Your task to perform on an android device: When is my next appointment? Image 0: 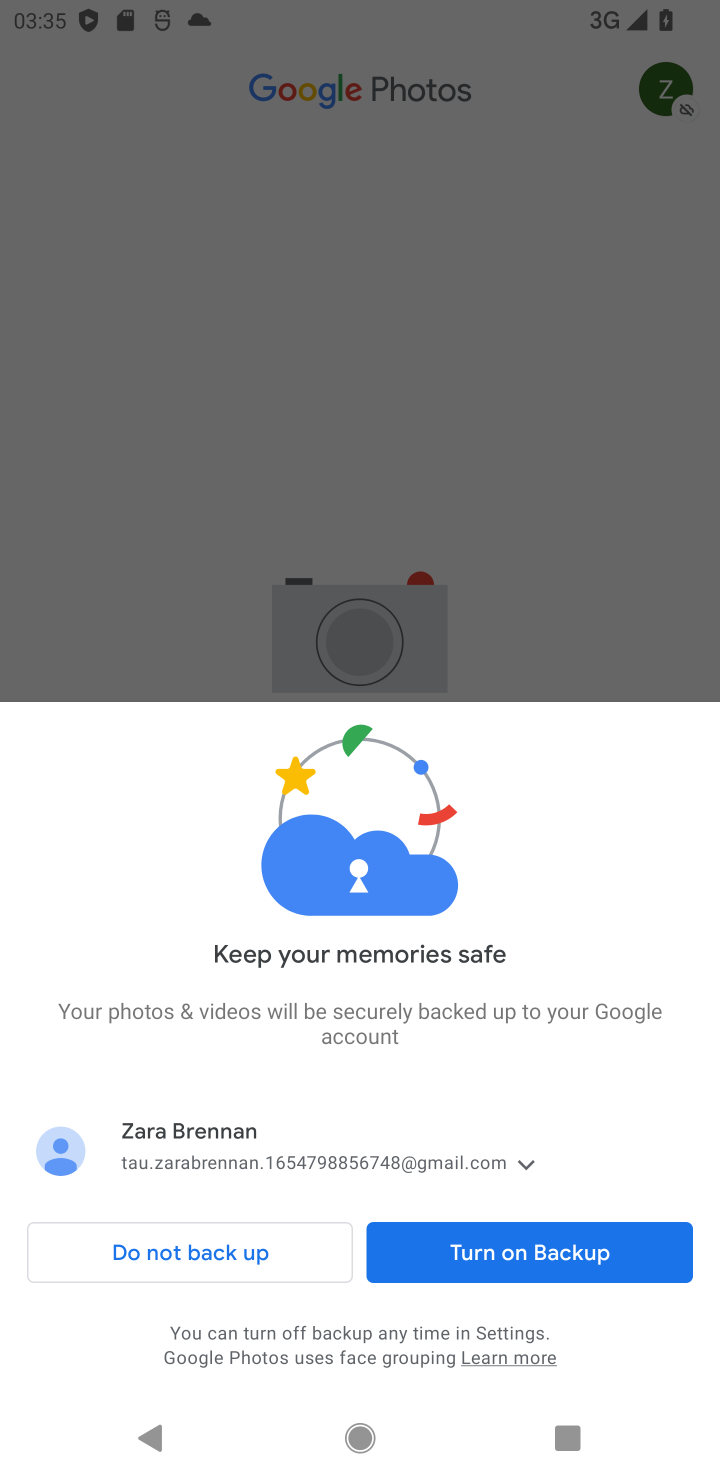
Step 0: press home button
Your task to perform on an android device: When is my next appointment? Image 1: 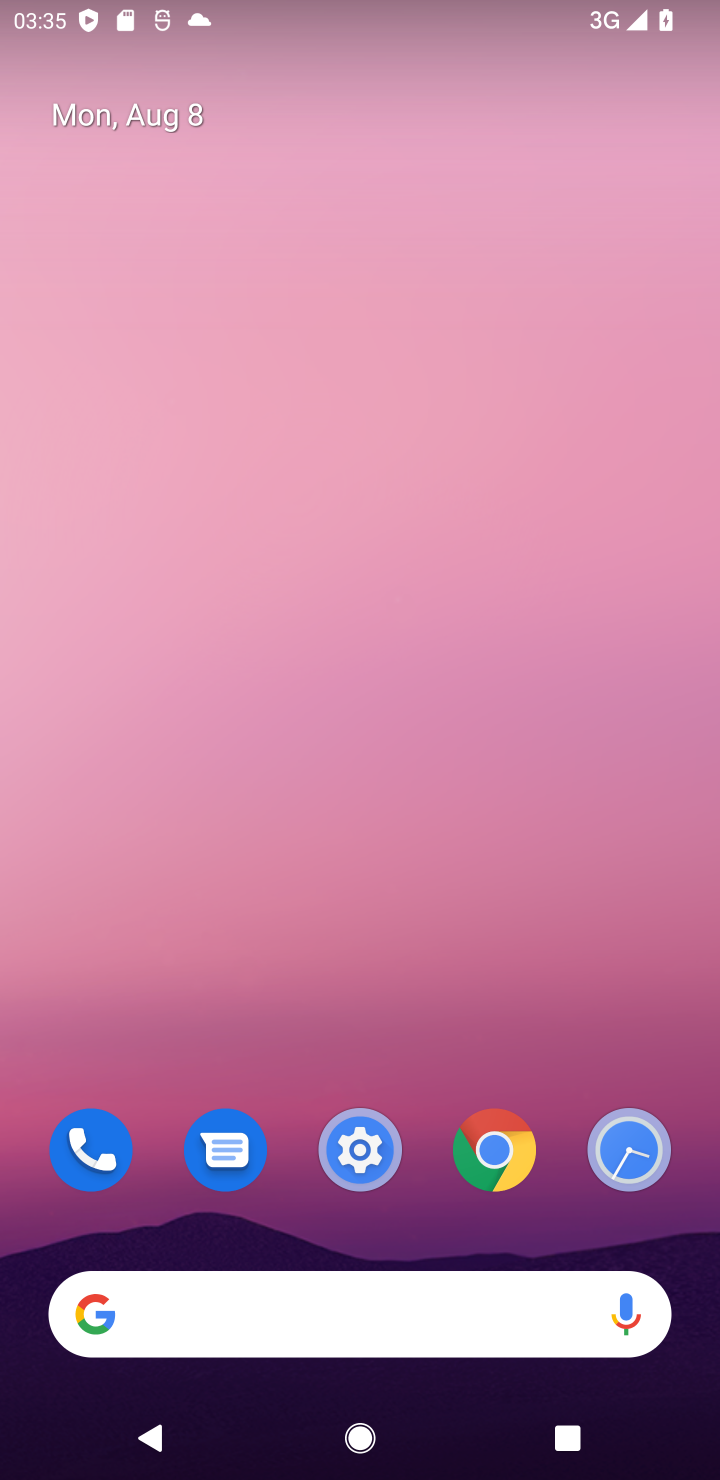
Step 1: drag from (22, 1417) to (412, 239)
Your task to perform on an android device: When is my next appointment? Image 2: 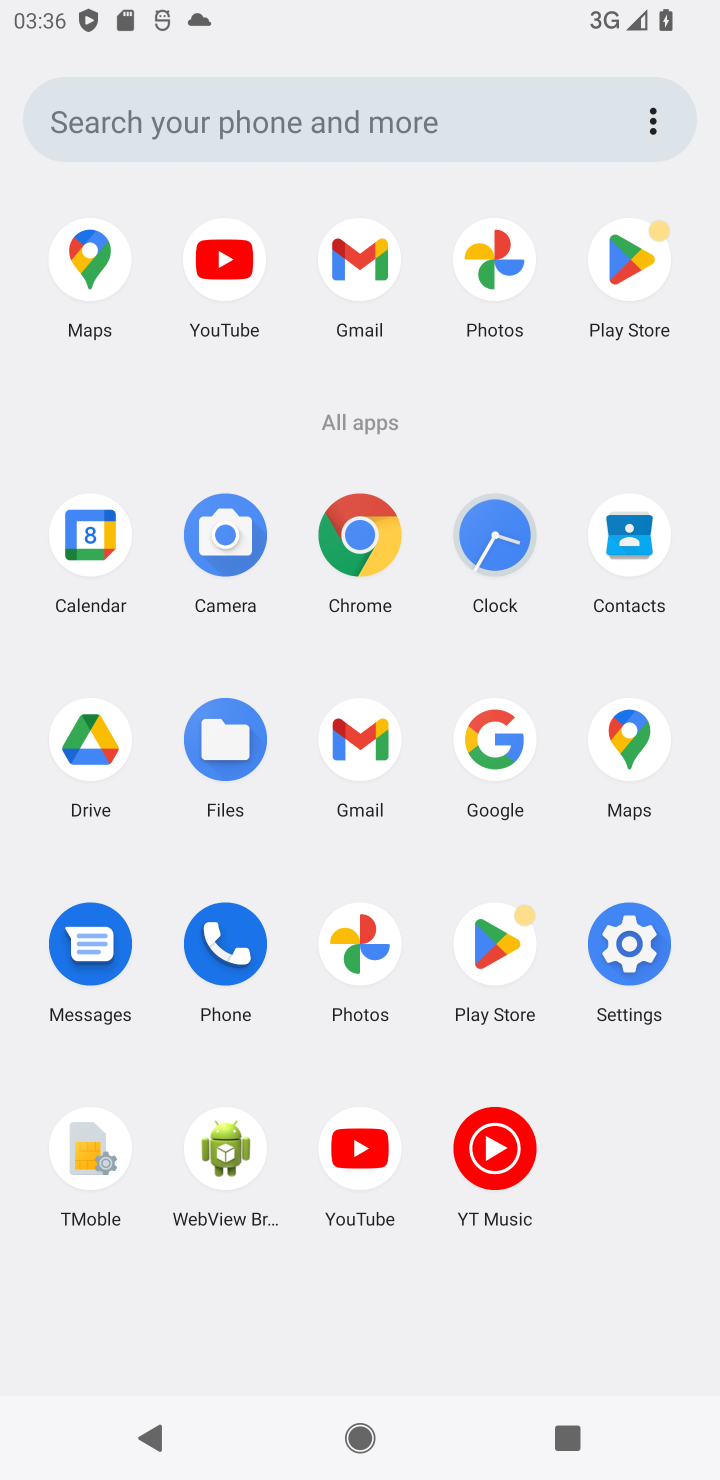
Step 2: click (84, 564)
Your task to perform on an android device: When is my next appointment? Image 3: 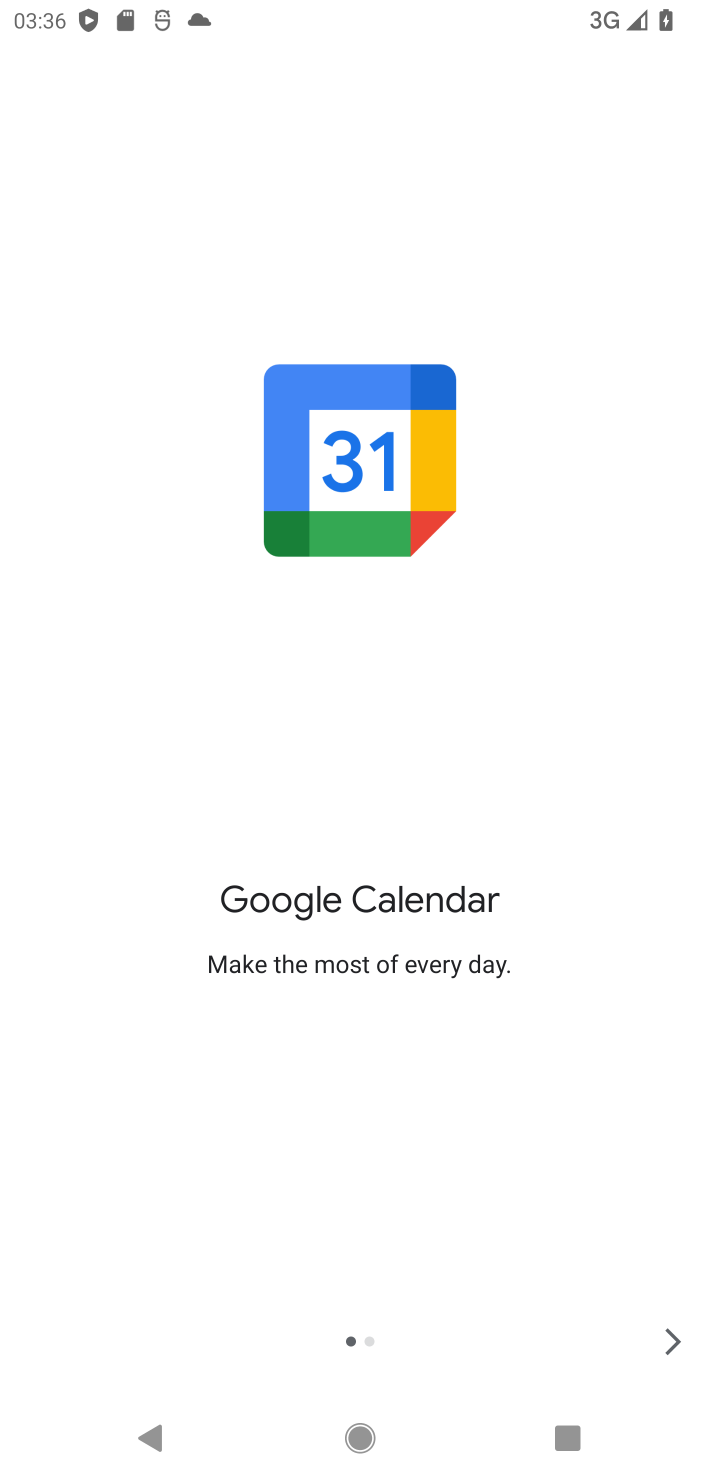
Step 3: click (673, 1337)
Your task to perform on an android device: When is my next appointment? Image 4: 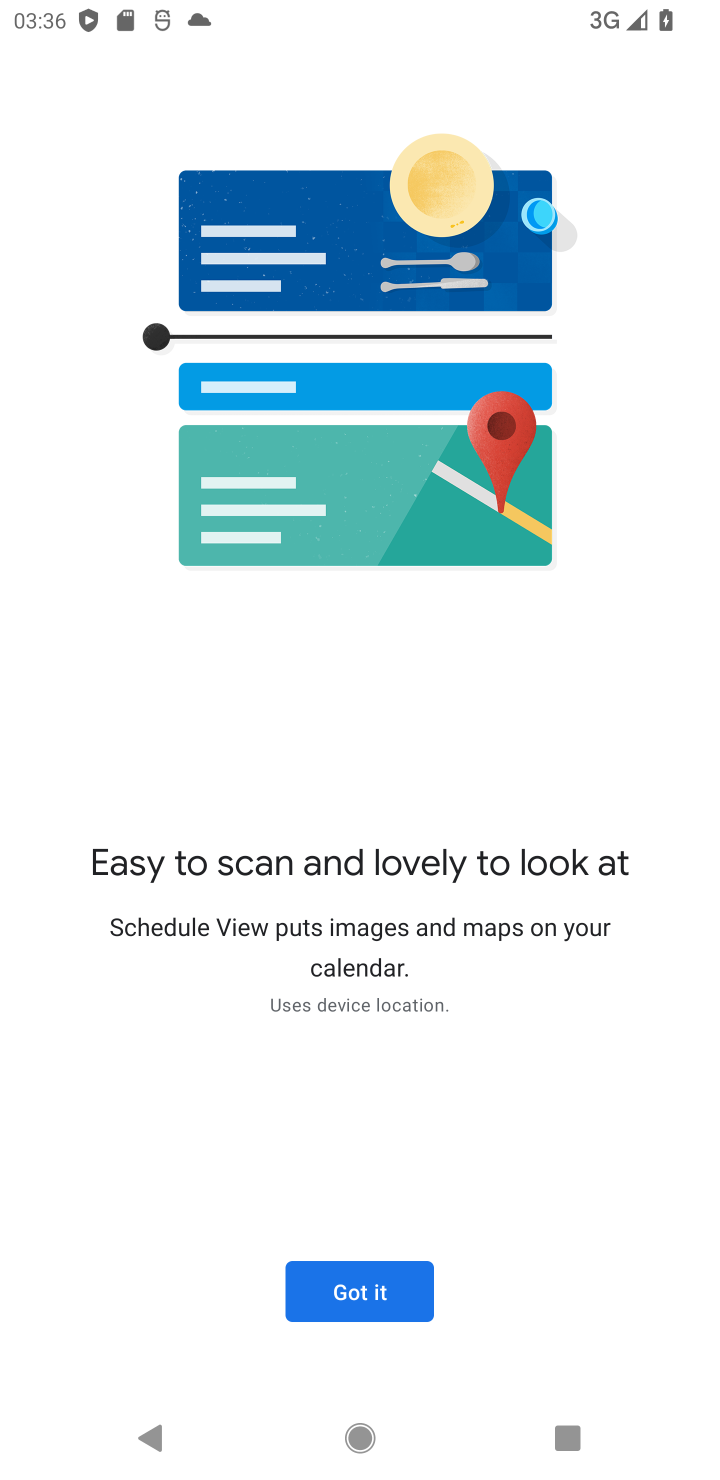
Step 4: click (391, 1288)
Your task to perform on an android device: When is my next appointment? Image 5: 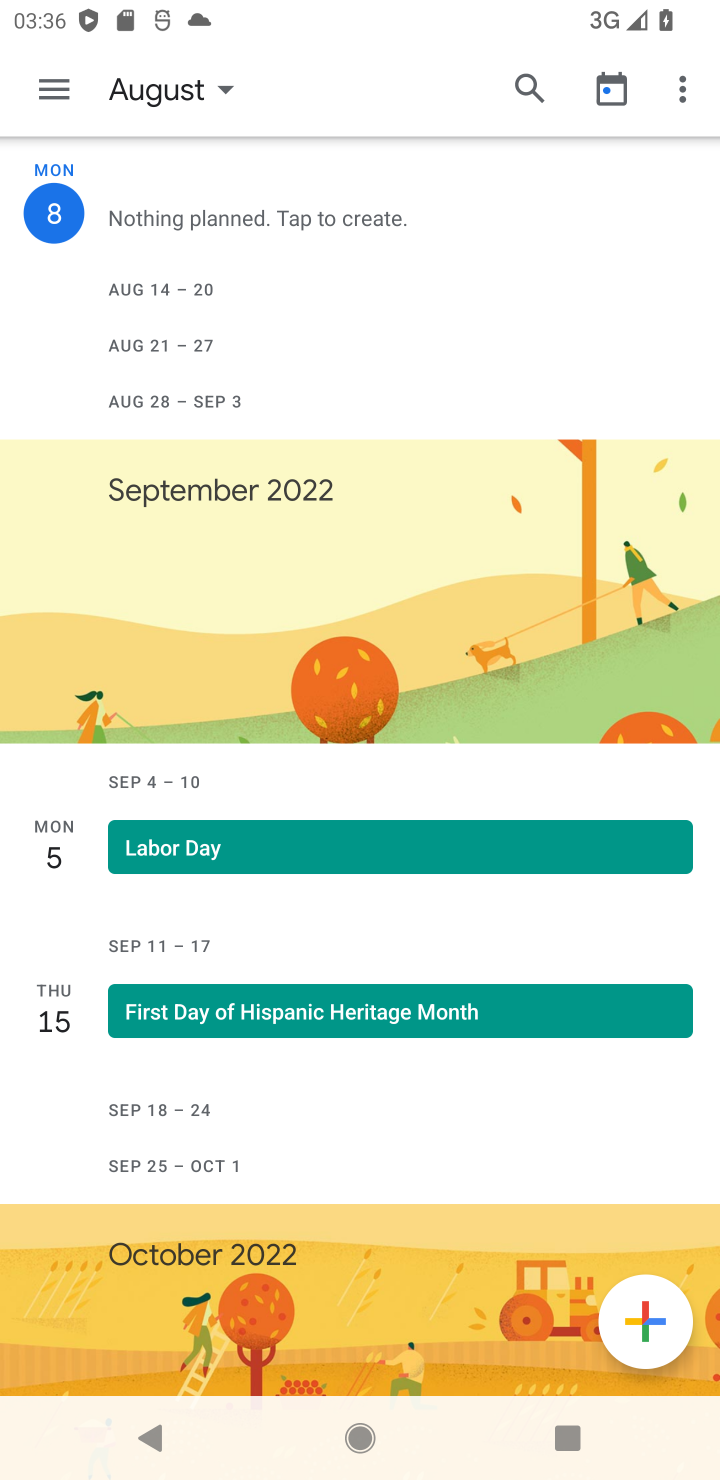
Step 5: click (157, 83)
Your task to perform on an android device: When is my next appointment? Image 6: 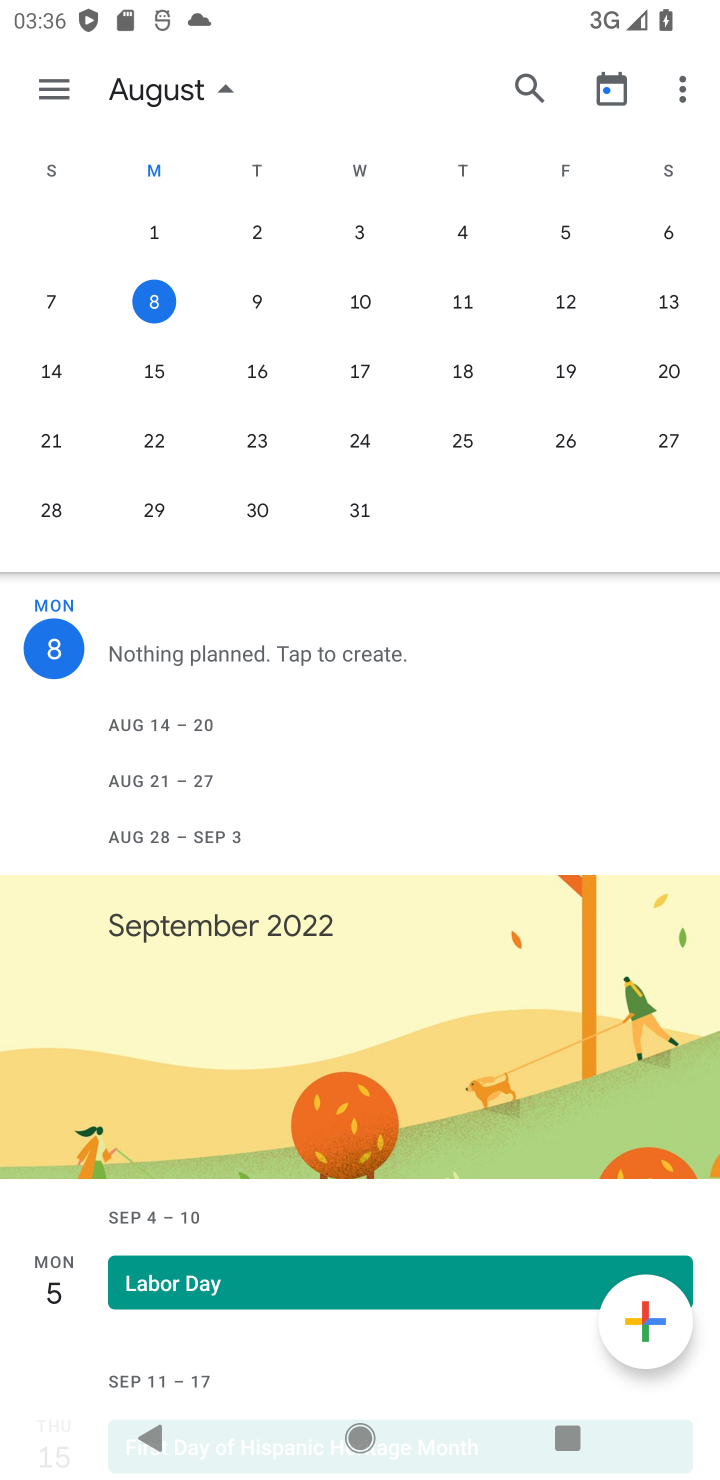
Step 6: task complete